Your task to perform on an android device: Open the phone app and click the voicemail tab. Image 0: 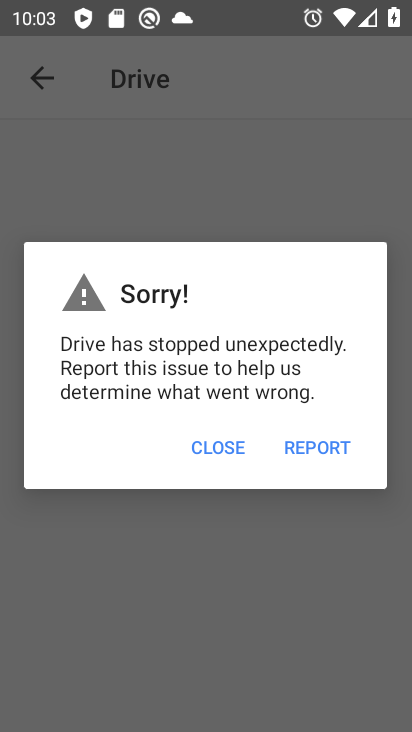
Step 0: press home button
Your task to perform on an android device: Open the phone app and click the voicemail tab. Image 1: 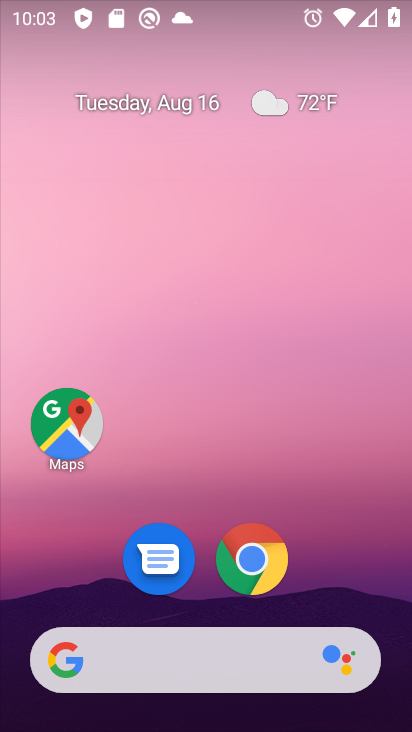
Step 1: drag from (190, 651) to (220, 156)
Your task to perform on an android device: Open the phone app and click the voicemail tab. Image 2: 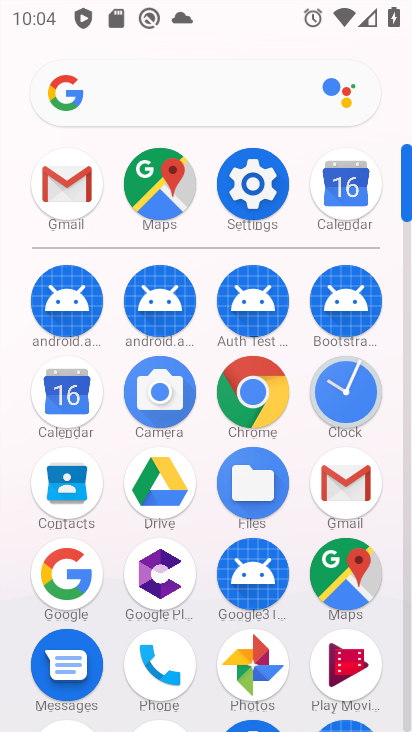
Step 2: click (154, 671)
Your task to perform on an android device: Open the phone app and click the voicemail tab. Image 3: 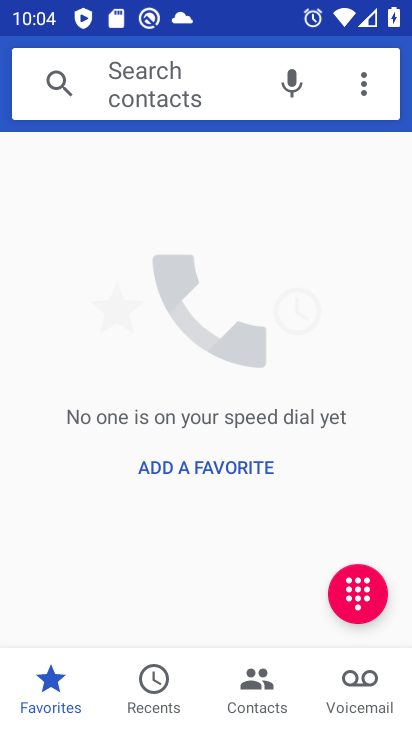
Step 3: click (358, 686)
Your task to perform on an android device: Open the phone app and click the voicemail tab. Image 4: 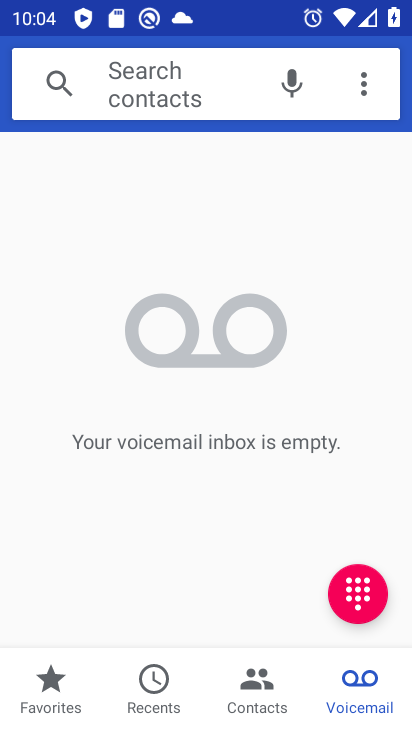
Step 4: task complete